Your task to perform on an android device: turn off location Image 0: 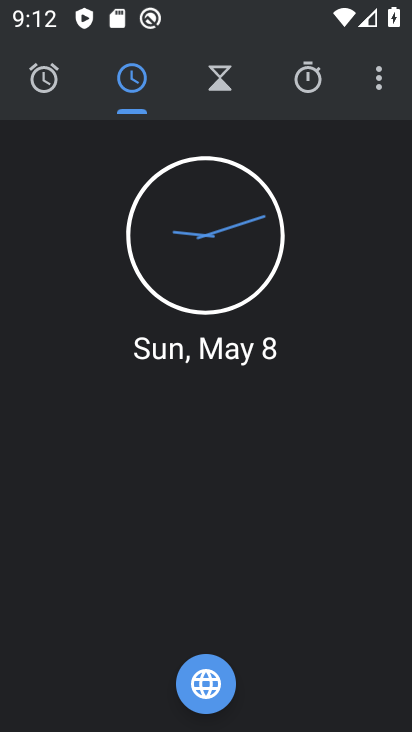
Step 0: press home button
Your task to perform on an android device: turn off location Image 1: 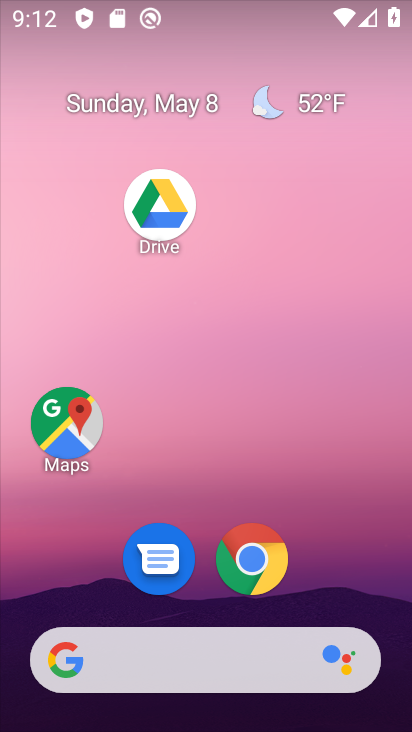
Step 1: drag from (327, 578) to (277, 93)
Your task to perform on an android device: turn off location Image 2: 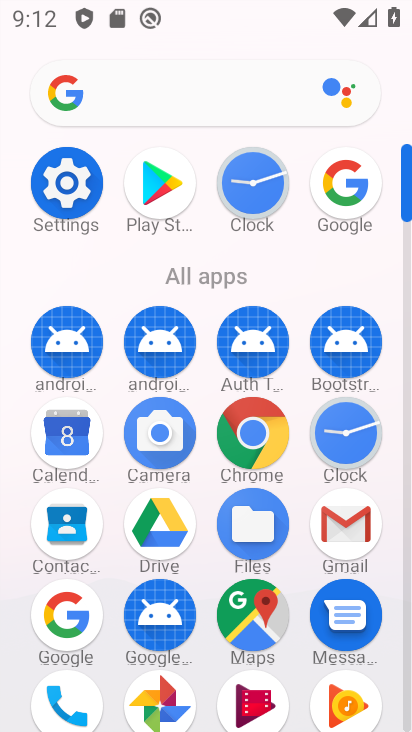
Step 2: click (84, 215)
Your task to perform on an android device: turn off location Image 3: 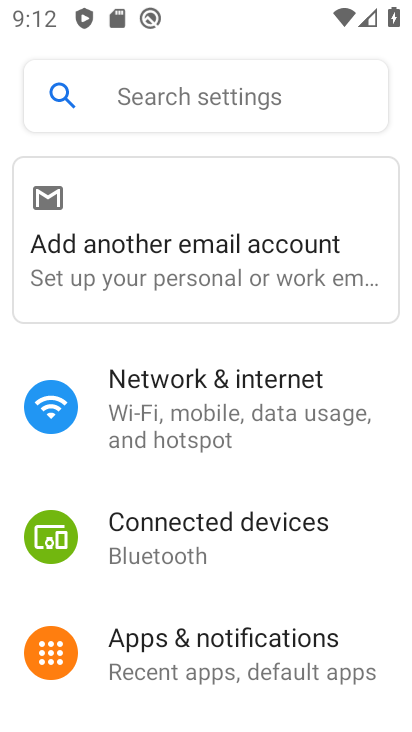
Step 3: drag from (218, 536) to (199, 179)
Your task to perform on an android device: turn off location Image 4: 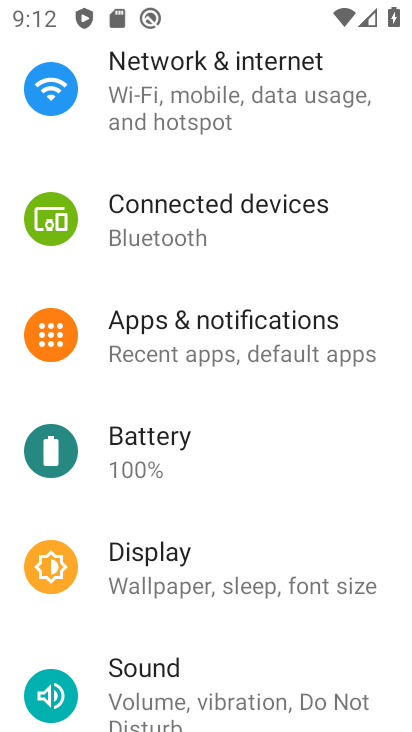
Step 4: drag from (186, 669) to (188, 141)
Your task to perform on an android device: turn off location Image 5: 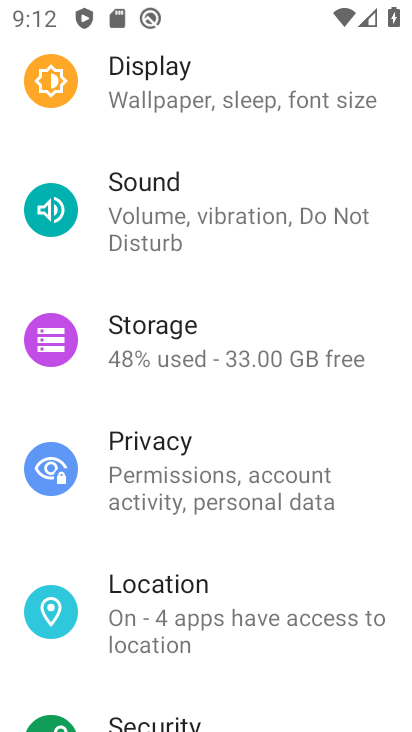
Step 5: click (134, 596)
Your task to perform on an android device: turn off location Image 6: 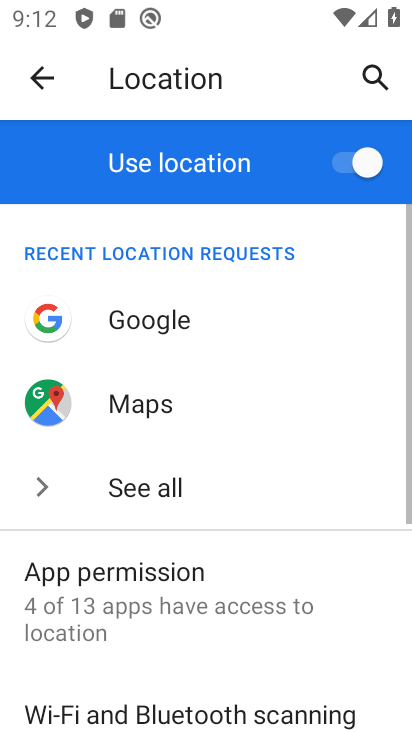
Step 6: click (366, 155)
Your task to perform on an android device: turn off location Image 7: 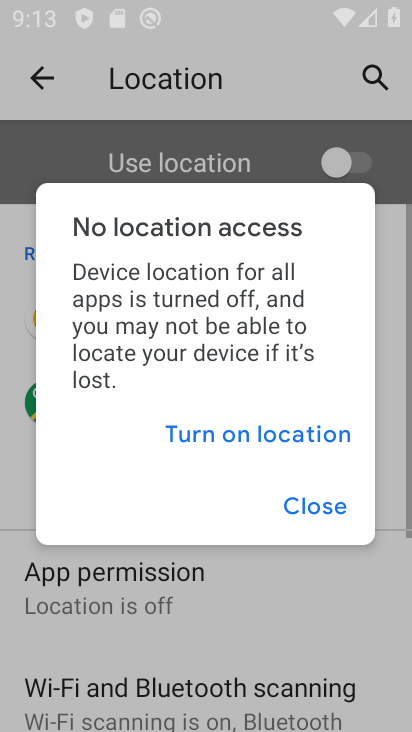
Step 7: task complete